Your task to perform on an android device: refresh tabs in the chrome app Image 0: 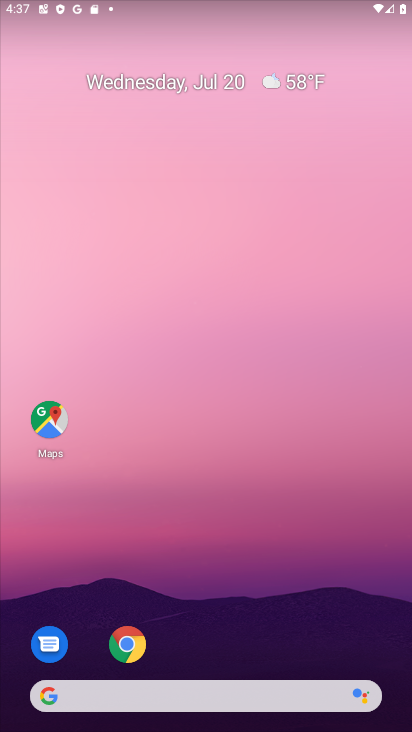
Step 0: drag from (208, 656) to (310, 213)
Your task to perform on an android device: refresh tabs in the chrome app Image 1: 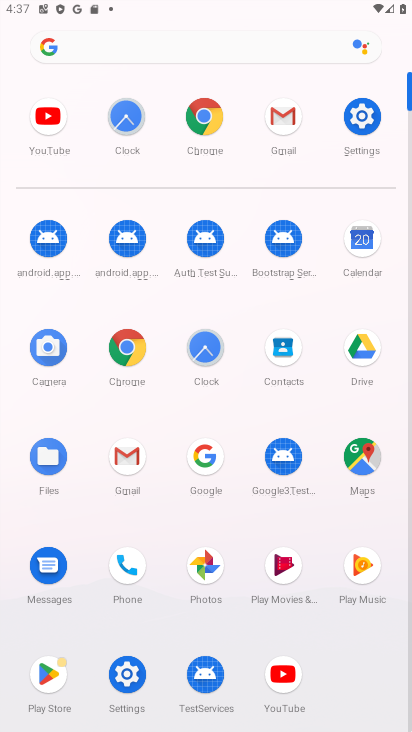
Step 1: click (206, 121)
Your task to perform on an android device: refresh tabs in the chrome app Image 2: 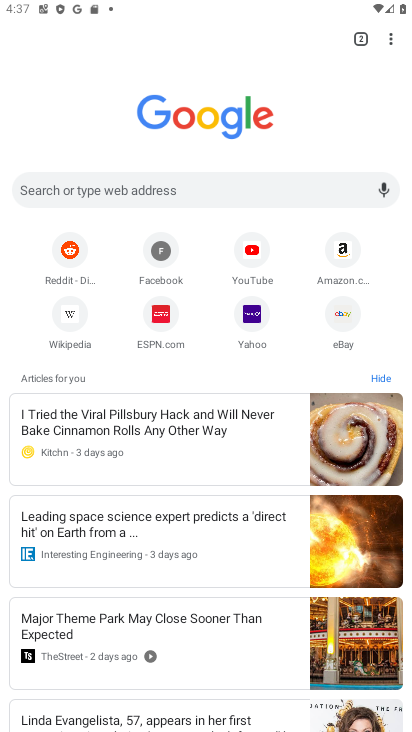
Step 2: click (391, 39)
Your task to perform on an android device: refresh tabs in the chrome app Image 3: 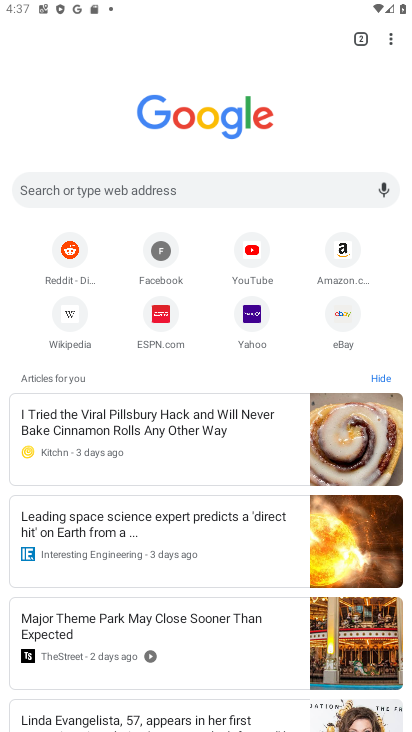
Step 3: task complete